Your task to perform on an android device: Go to Wikipedia Image 0: 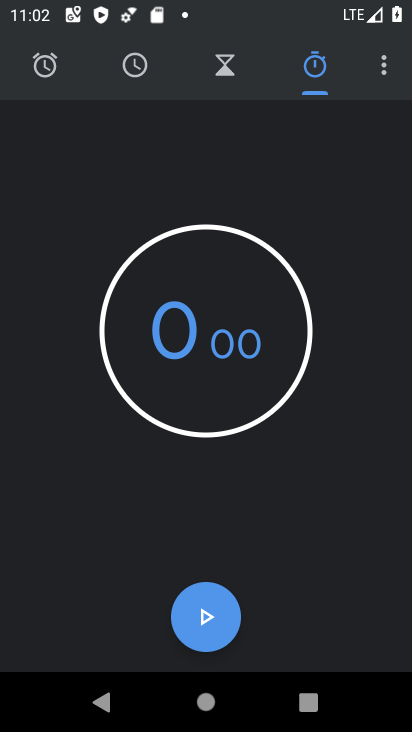
Step 0: press home button
Your task to perform on an android device: Go to Wikipedia Image 1: 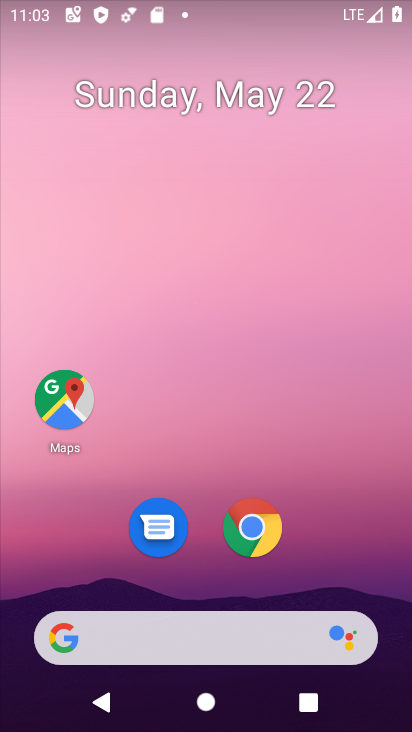
Step 1: click (252, 632)
Your task to perform on an android device: Go to Wikipedia Image 2: 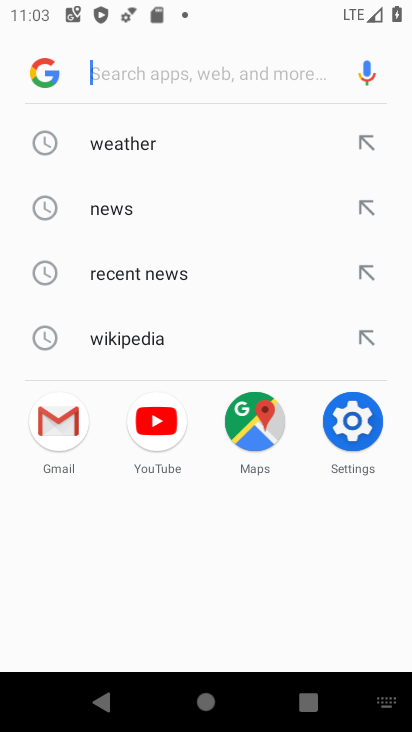
Step 2: click (151, 325)
Your task to perform on an android device: Go to Wikipedia Image 3: 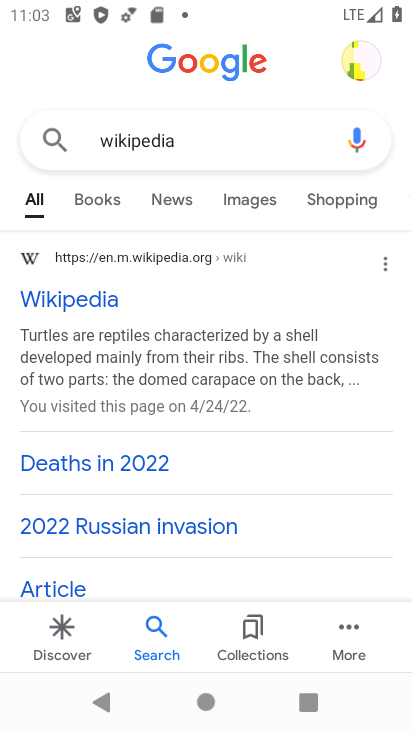
Step 3: click (69, 344)
Your task to perform on an android device: Go to Wikipedia Image 4: 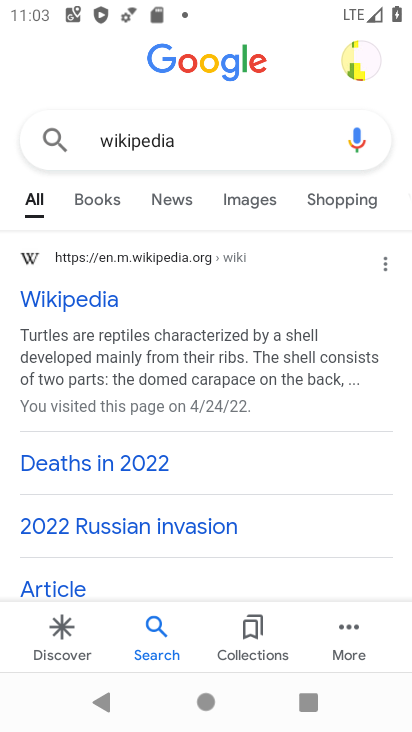
Step 4: click (72, 341)
Your task to perform on an android device: Go to Wikipedia Image 5: 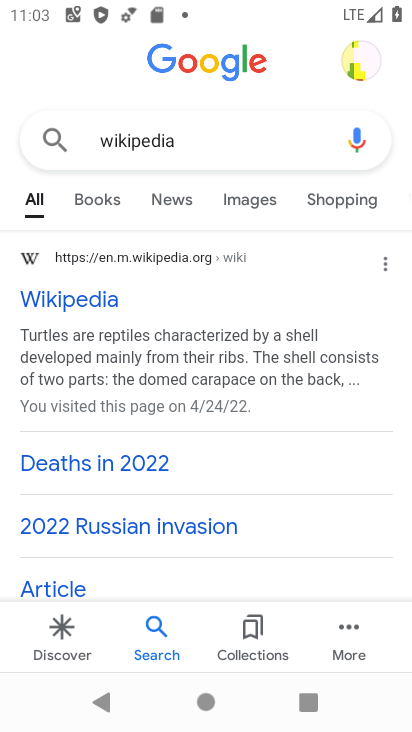
Step 5: click (67, 301)
Your task to perform on an android device: Go to Wikipedia Image 6: 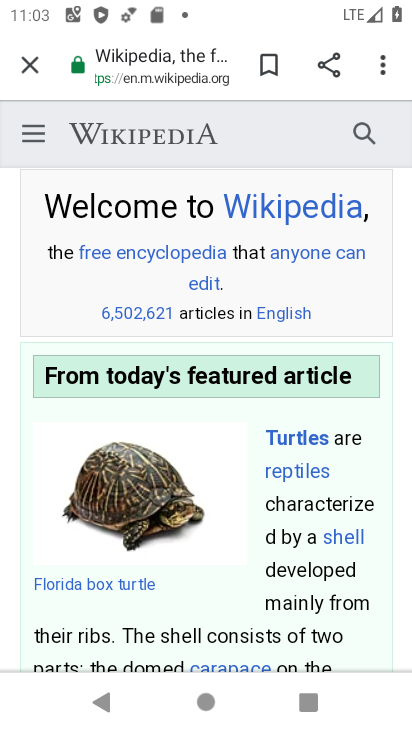
Step 6: task complete